Your task to perform on an android device: open the mobile data screen to see how much data has been used Image 0: 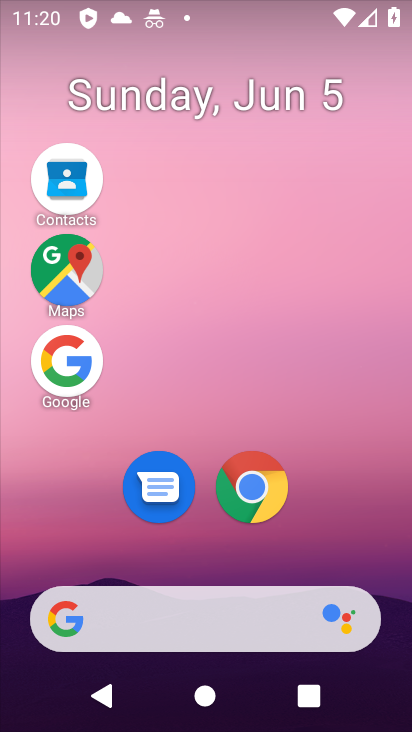
Step 0: drag from (256, 442) to (287, 9)
Your task to perform on an android device: open the mobile data screen to see how much data has been used Image 1: 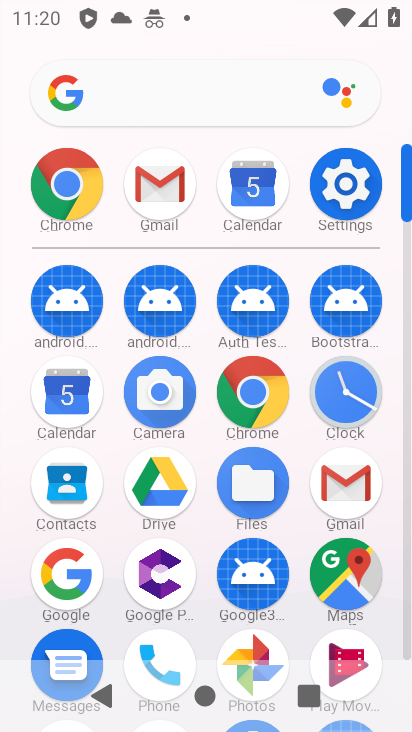
Step 1: click (342, 170)
Your task to perform on an android device: open the mobile data screen to see how much data has been used Image 2: 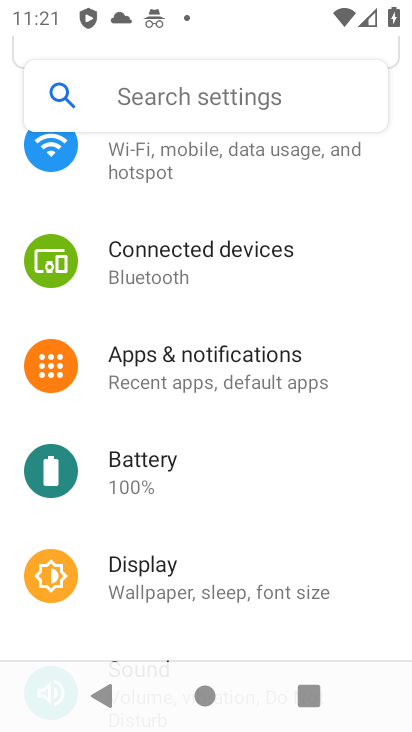
Step 2: drag from (277, 240) to (286, 520)
Your task to perform on an android device: open the mobile data screen to see how much data has been used Image 3: 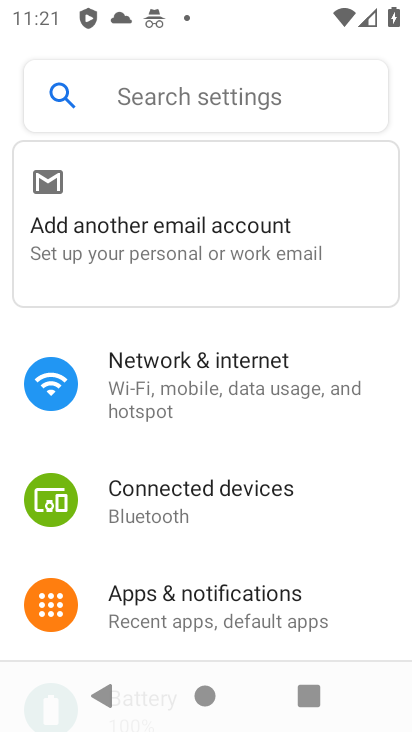
Step 3: click (242, 405)
Your task to perform on an android device: open the mobile data screen to see how much data has been used Image 4: 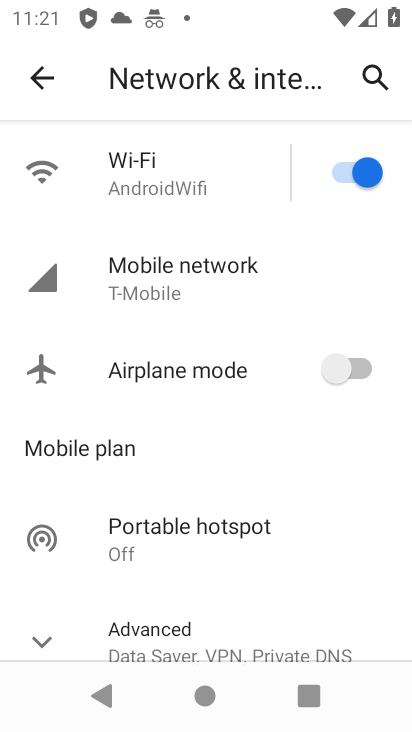
Step 4: click (166, 295)
Your task to perform on an android device: open the mobile data screen to see how much data has been used Image 5: 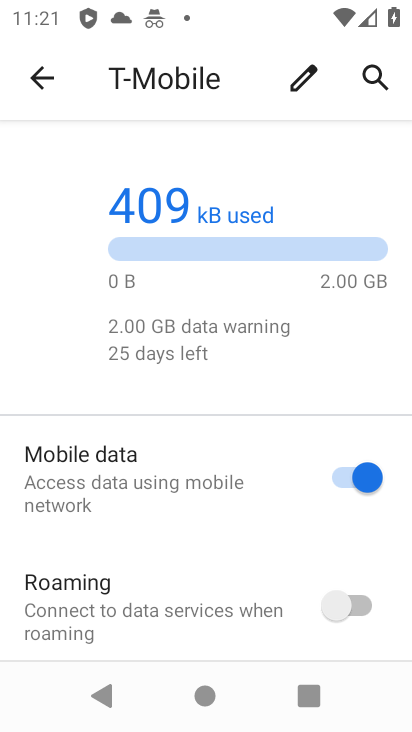
Step 5: drag from (138, 569) to (189, 128)
Your task to perform on an android device: open the mobile data screen to see how much data has been used Image 6: 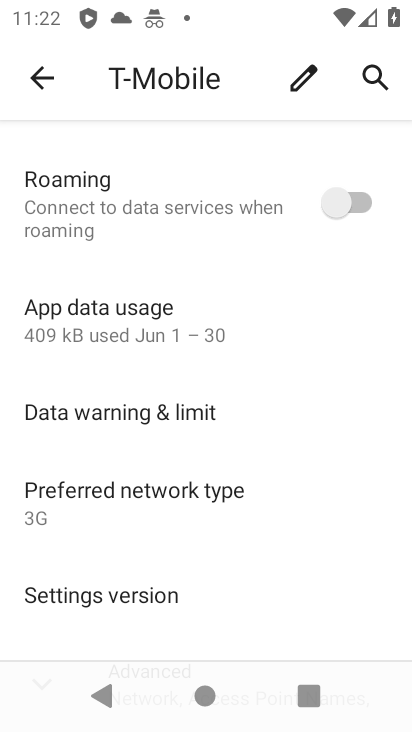
Step 6: drag from (192, 547) to (225, 276)
Your task to perform on an android device: open the mobile data screen to see how much data has been used Image 7: 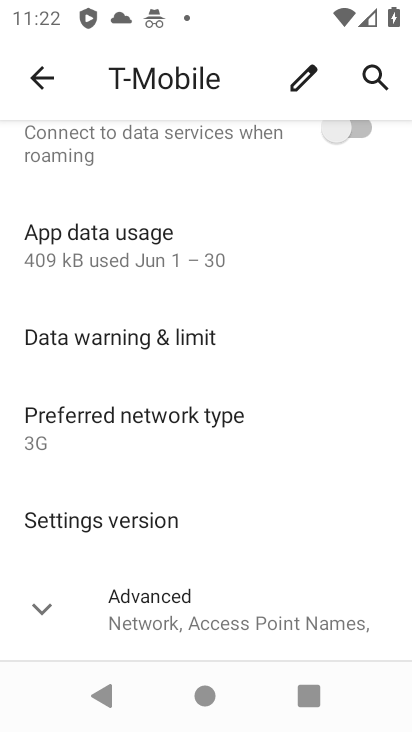
Step 7: click (191, 255)
Your task to perform on an android device: open the mobile data screen to see how much data has been used Image 8: 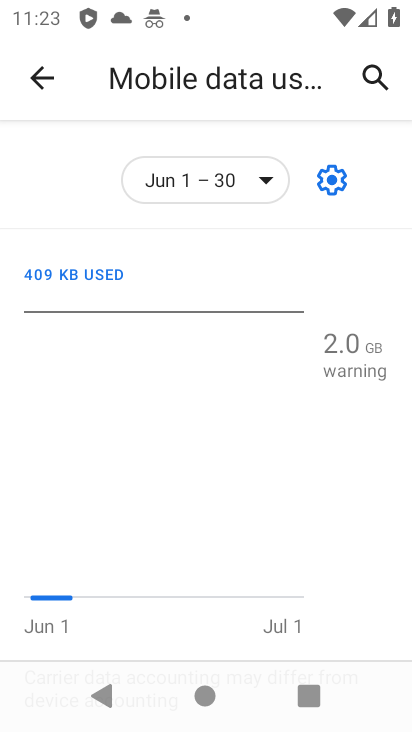
Step 8: task complete